Your task to perform on an android device: Clear all items from cart on amazon. Image 0: 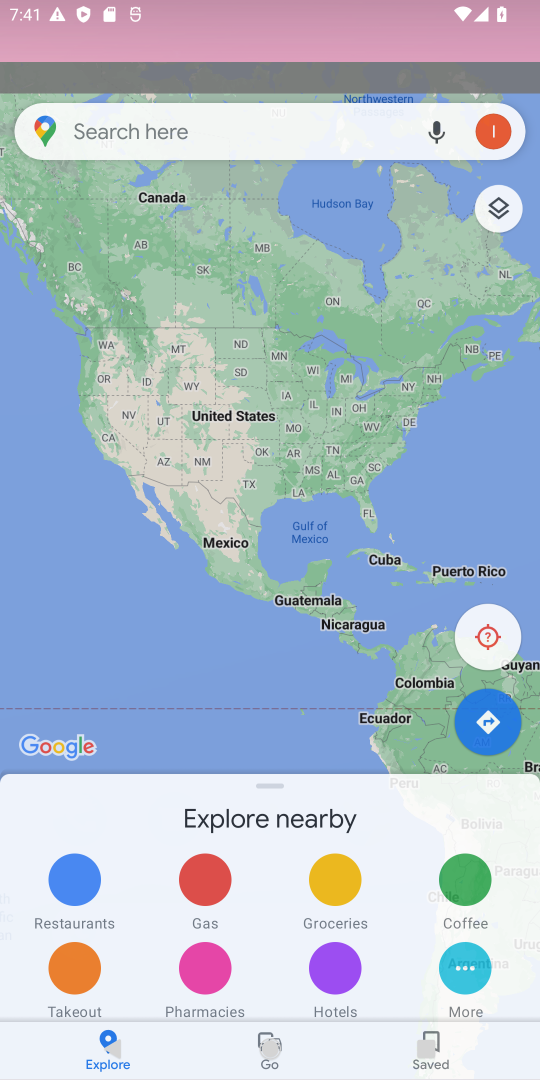
Step 0: click (510, 384)
Your task to perform on an android device: Clear all items from cart on amazon. Image 1: 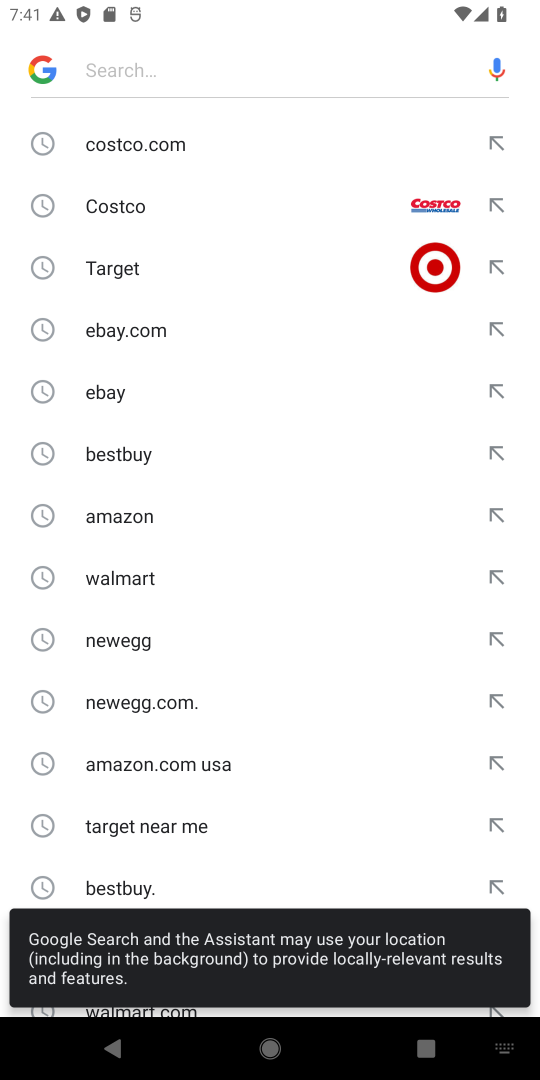
Step 1: press home button
Your task to perform on an android device: Clear all items from cart on amazon. Image 2: 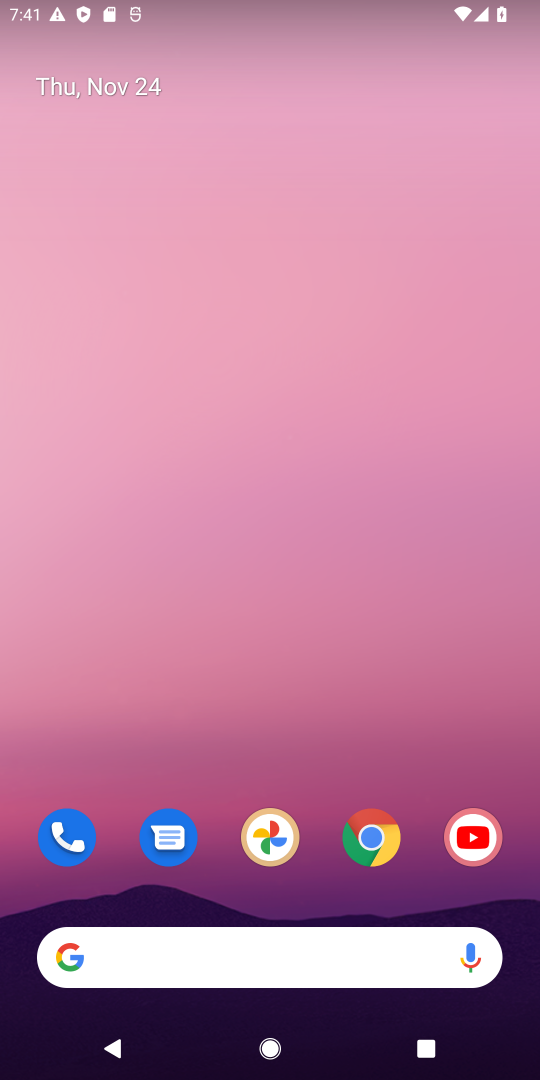
Step 2: click (366, 823)
Your task to perform on an android device: Clear all items from cart on amazon. Image 3: 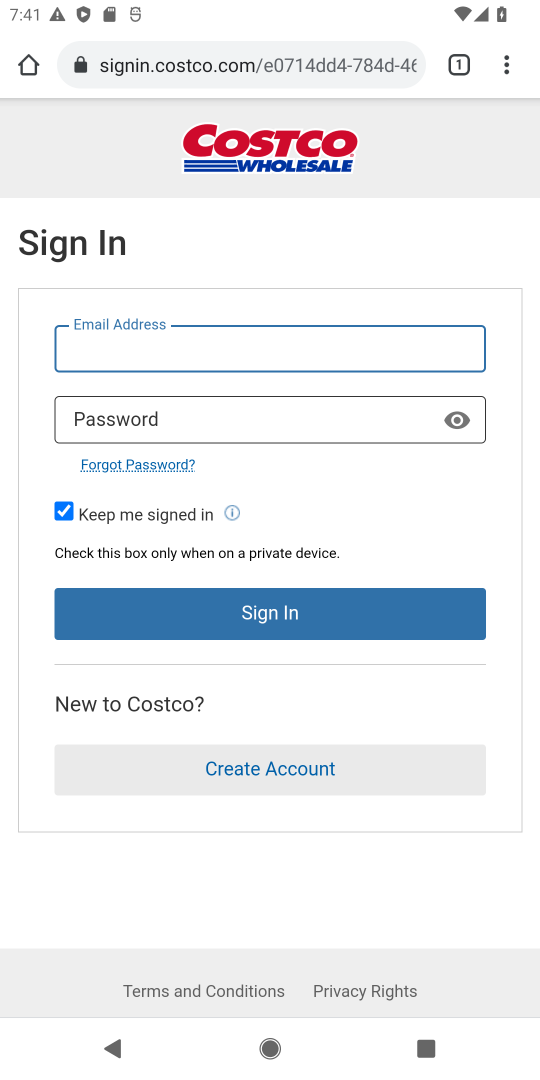
Step 3: click (303, 70)
Your task to perform on an android device: Clear all items from cart on amazon. Image 4: 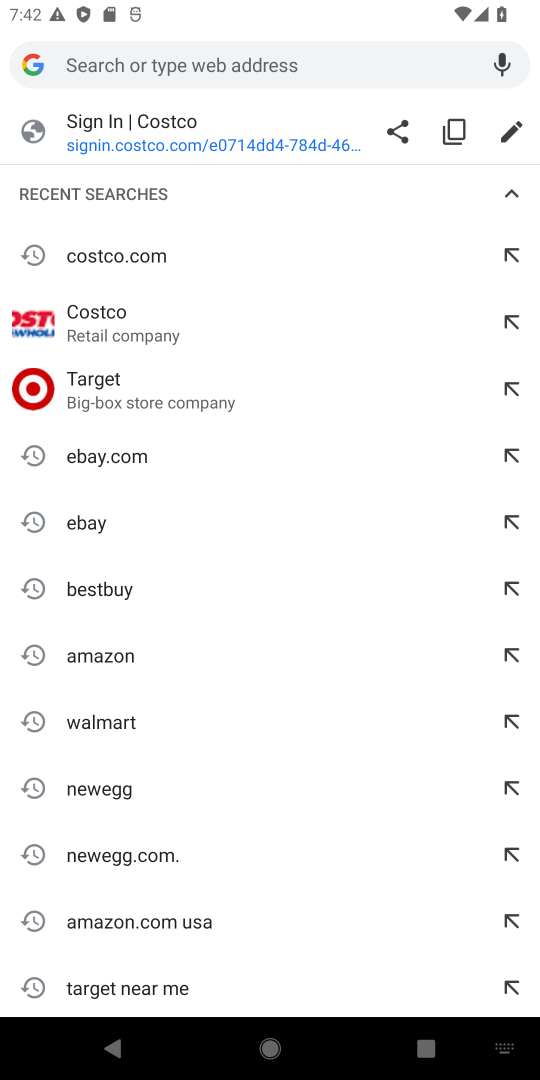
Step 4: type "amazon"
Your task to perform on an android device: Clear all items from cart on amazon. Image 5: 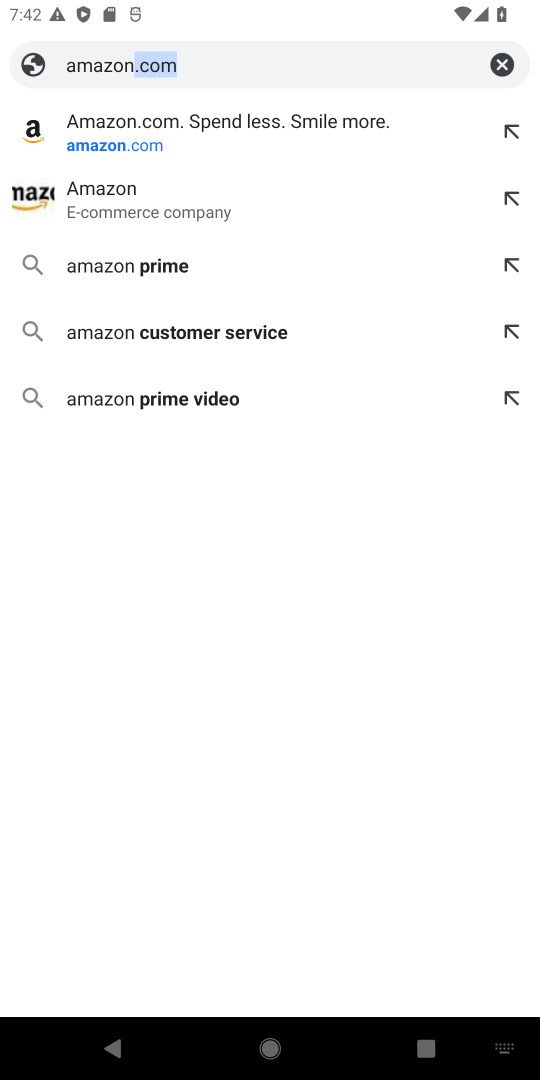
Step 5: click (175, 140)
Your task to perform on an android device: Clear all items from cart on amazon. Image 6: 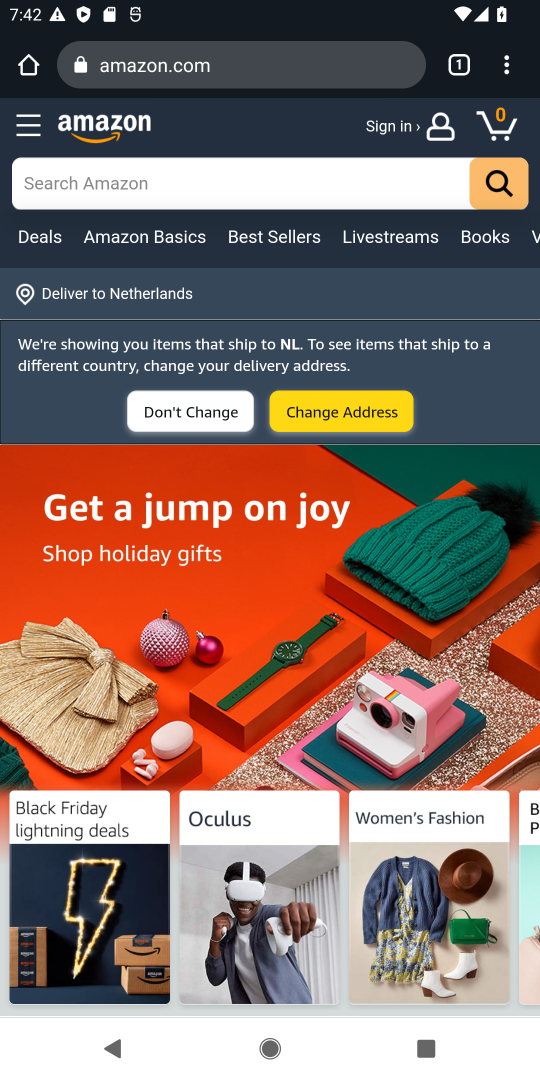
Step 6: click (501, 122)
Your task to perform on an android device: Clear all items from cart on amazon. Image 7: 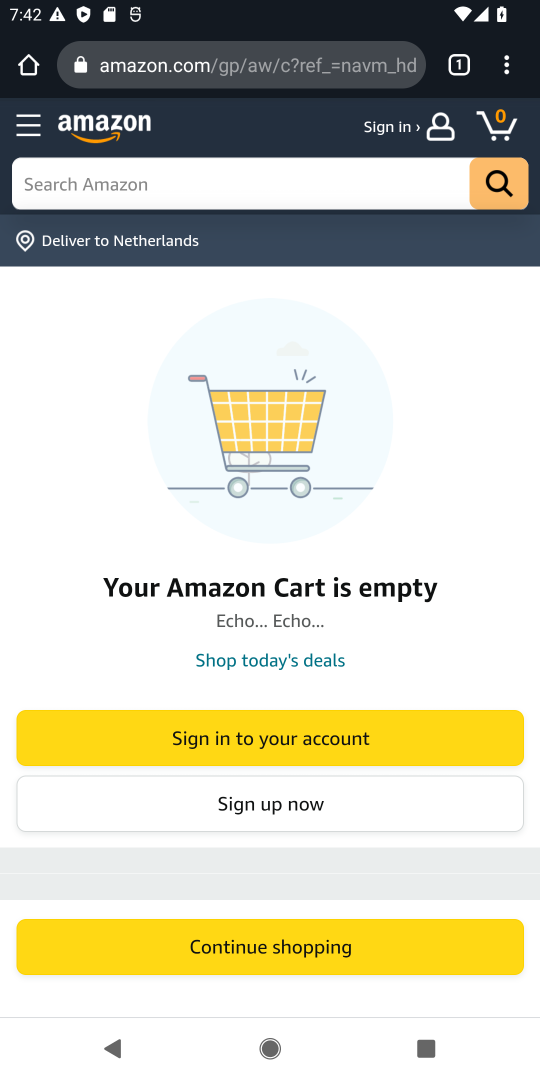
Step 7: task complete